Your task to perform on an android device: Go to network settings Image 0: 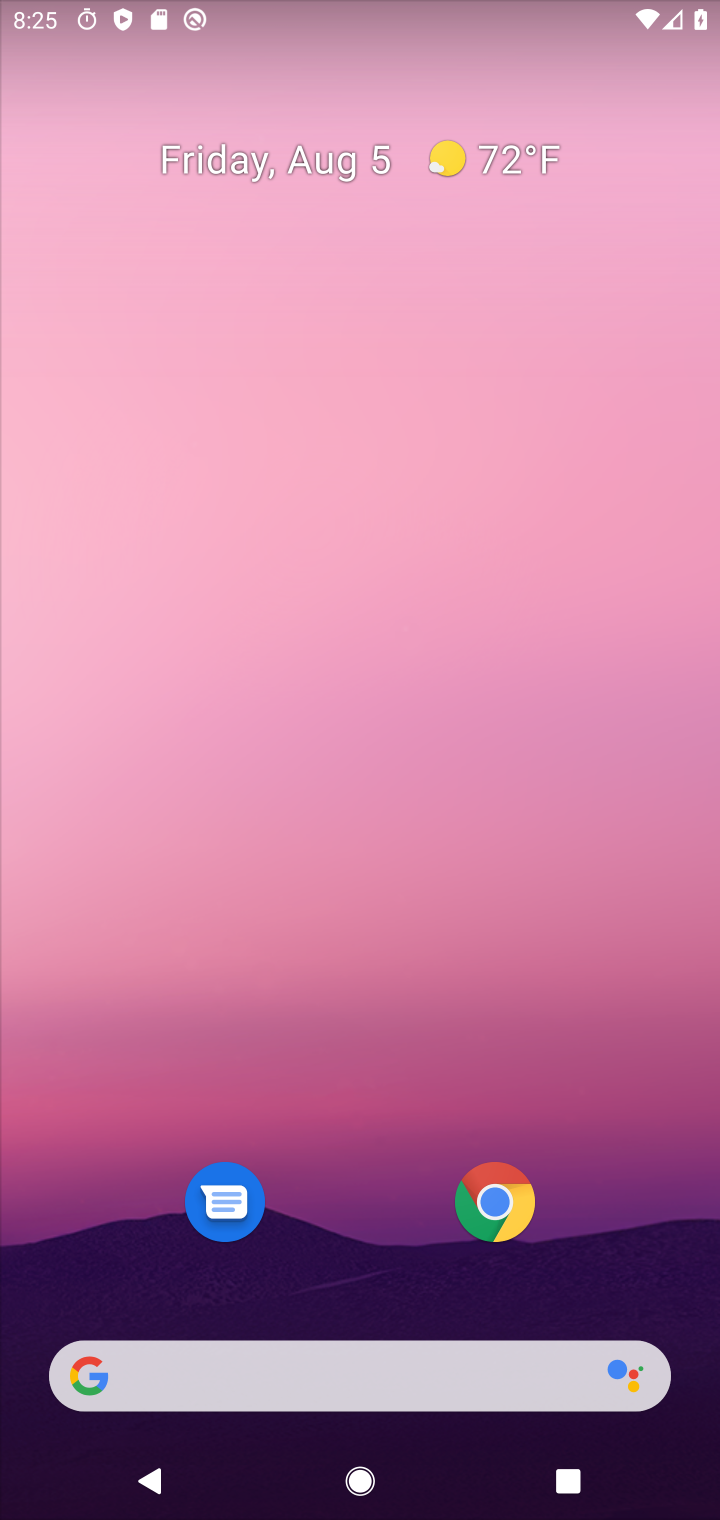
Step 0: drag from (360, 1256) to (456, 422)
Your task to perform on an android device: Go to network settings Image 1: 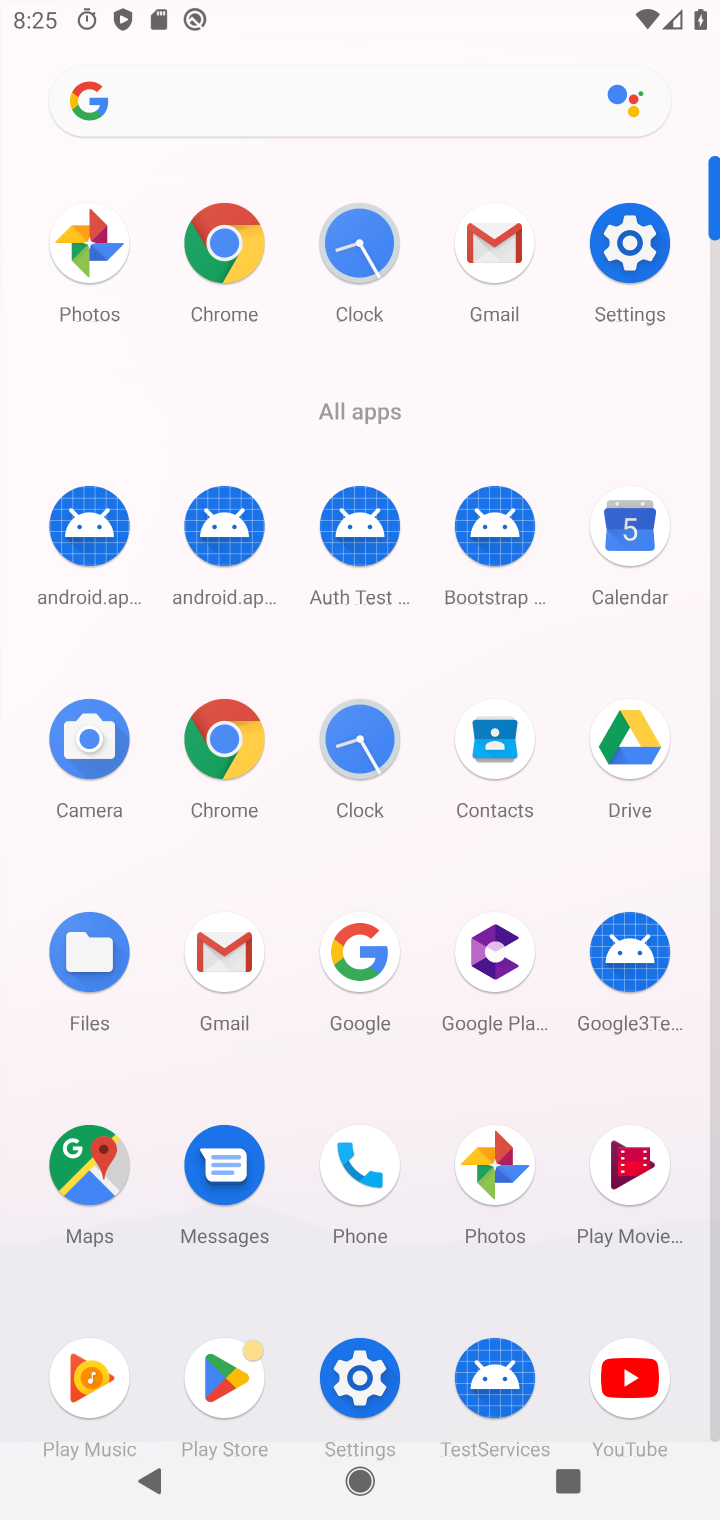
Step 1: click (616, 251)
Your task to perform on an android device: Go to network settings Image 2: 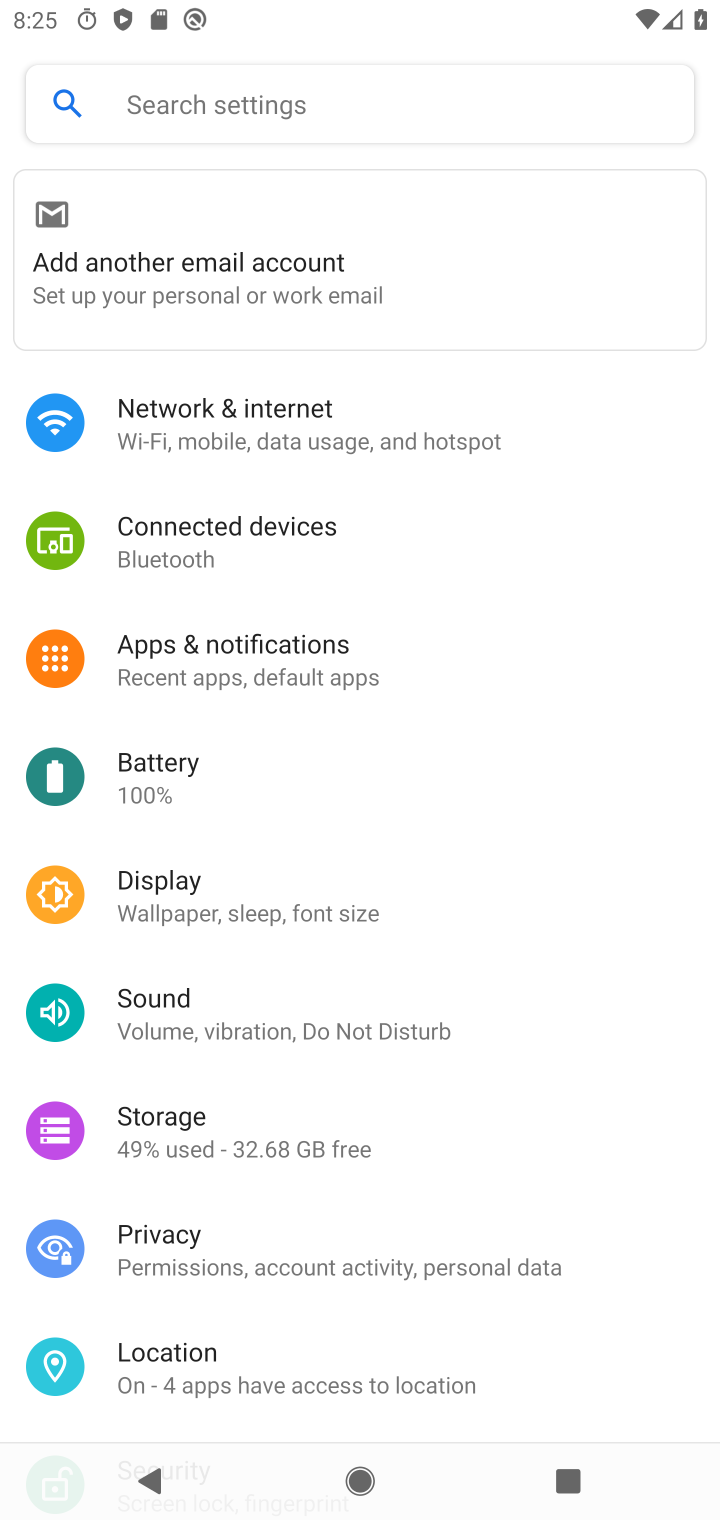
Step 2: click (302, 408)
Your task to perform on an android device: Go to network settings Image 3: 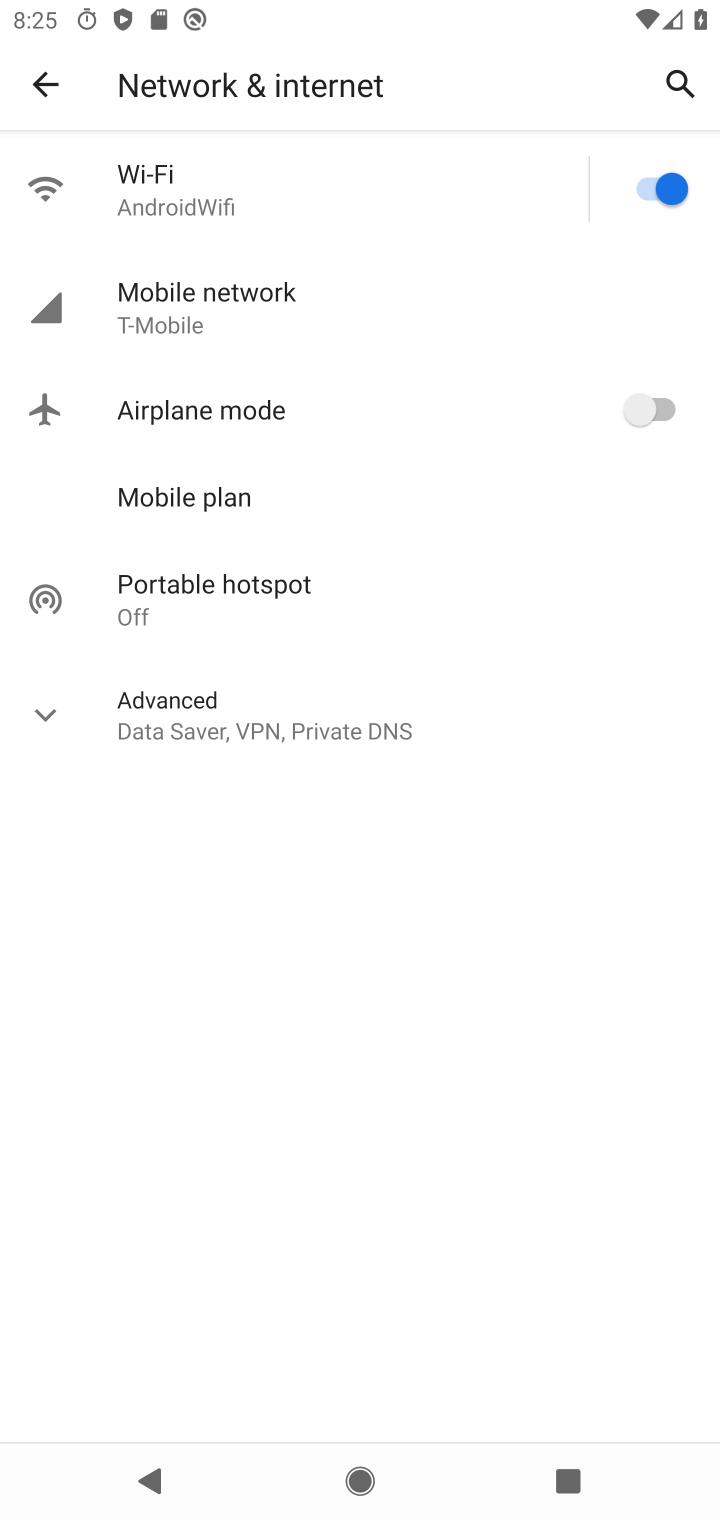
Step 3: task complete